Your task to perform on an android device: toggle pop-ups in chrome Image 0: 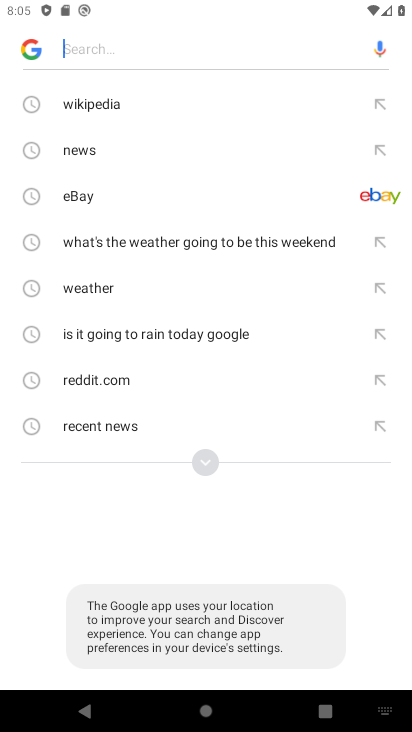
Step 0: press back button
Your task to perform on an android device: toggle pop-ups in chrome Image 1: 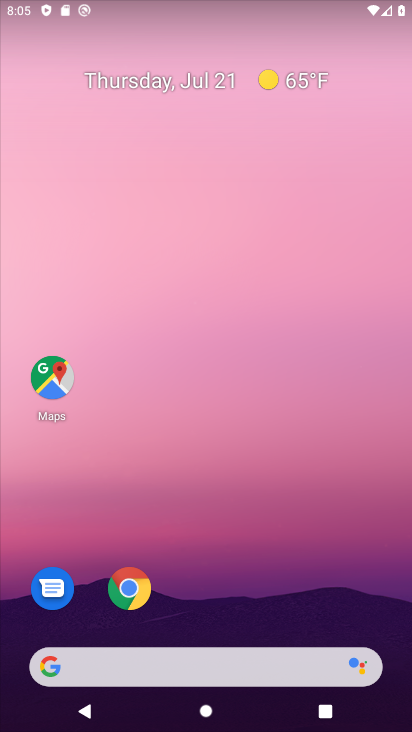
Step 1: click (147, 588)
Your task to perform on an android device: toggle pop-ups in chrome Image 2: 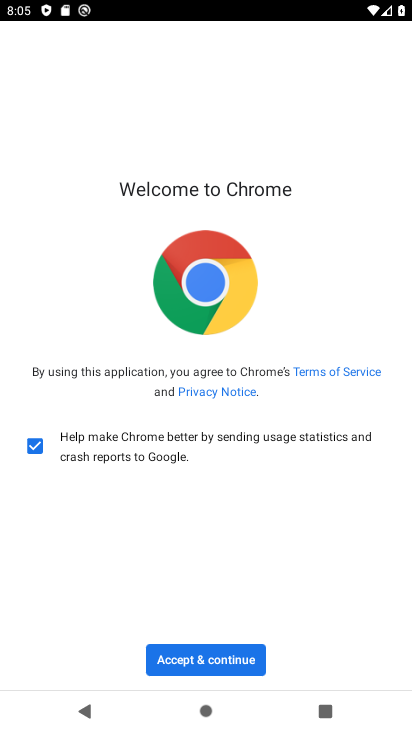
Step 2: click (245, 651)
Your task to perform on an android device: toggle pop-ups in chrome Image 3: 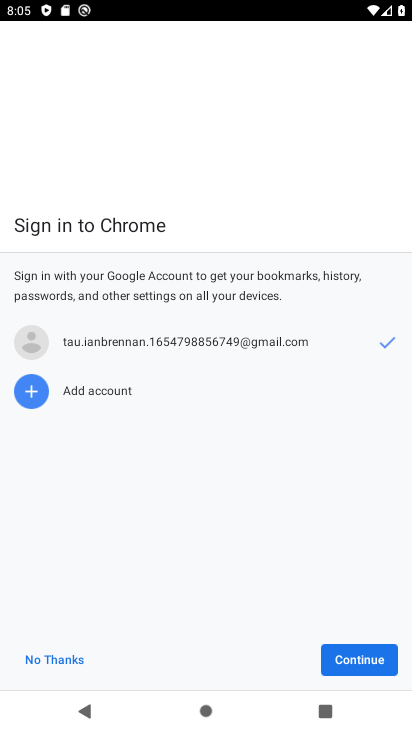
Step 3: click (351, 660)
Your task to perform on an android device: toggle pop-ups in chrome Image 4: 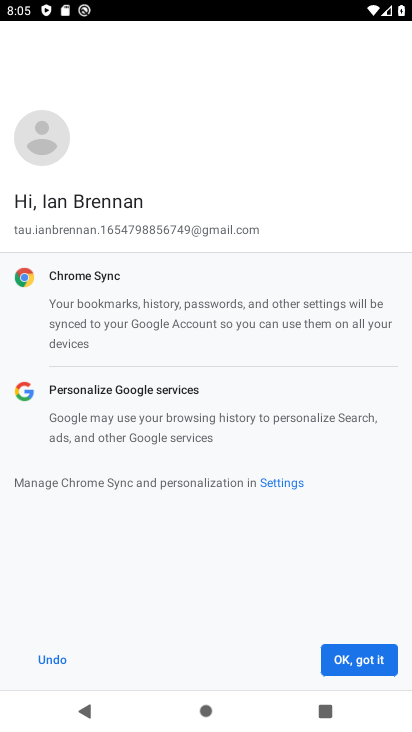
Step 4: click (387, 656)
Your task to perform on an android device: toggle pop-ups in chrome Image 5: 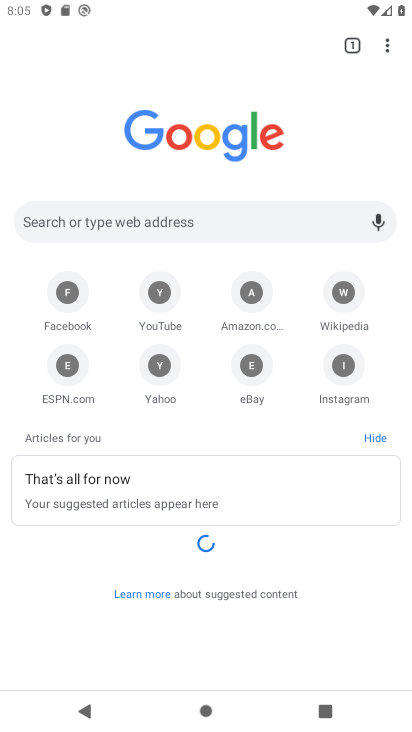
Step 5: drag from (388, 40) to (242, 378)
Your task to perform on an android device: toggle pop-ups in chrome Image 6: 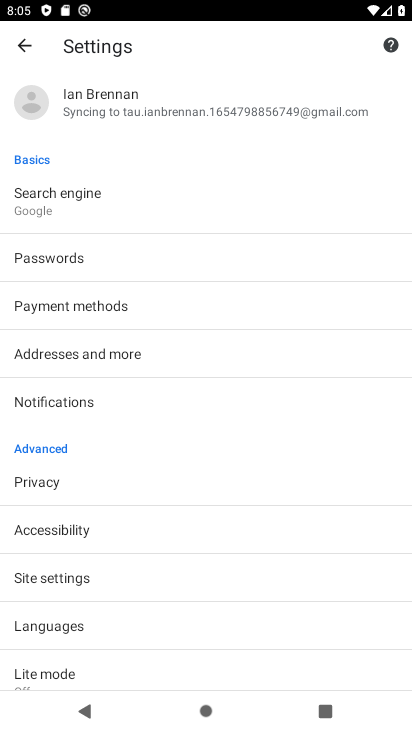
Step 6: click (101, 586)
Your task to perform on an android device: toggle pop-ups in chrome Image 7: 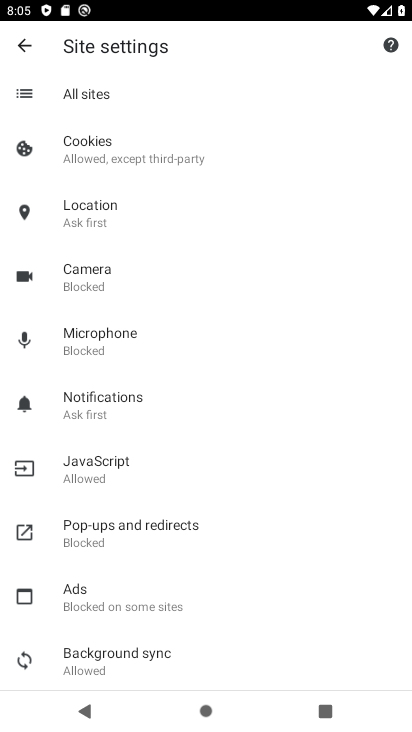
Step 7: click (146, 532)
Your task to perform on an android device: toggle pop-ups in chrome Image 8: 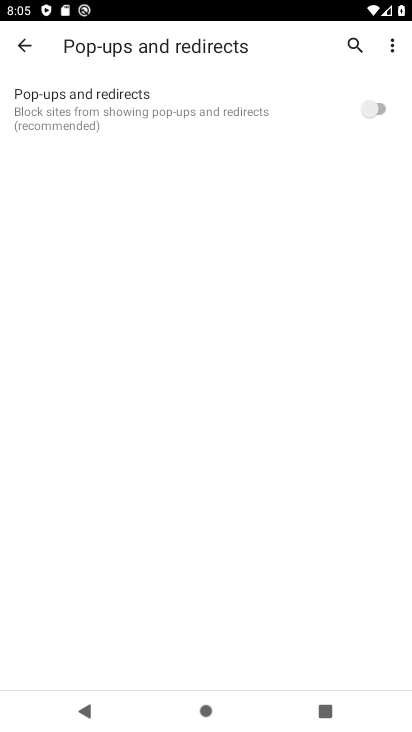
Step 8: click (361, 107)
Your task to perform on an android device: toggle pop-ups in chrome Image 9: 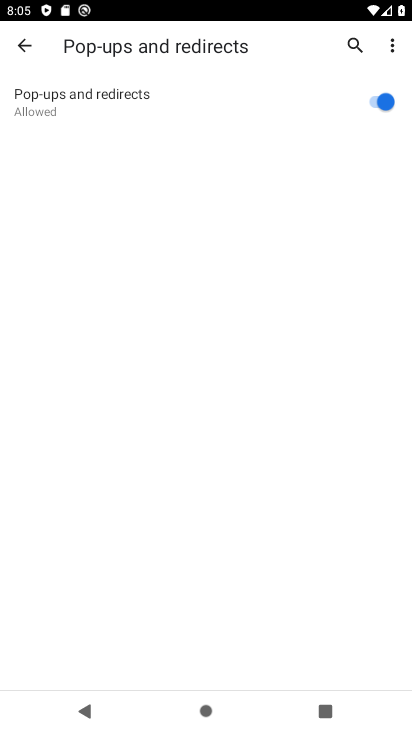
Step 9: task complete